Your task to perform on an android device: search for starred emails in the gmail app Image 0: 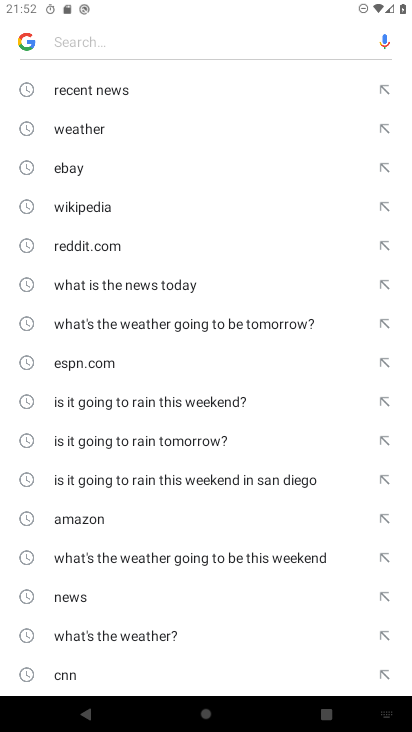
Step 0: press home button
Your task to perform on an android device: search for starred emails in the gmail app Image 1: 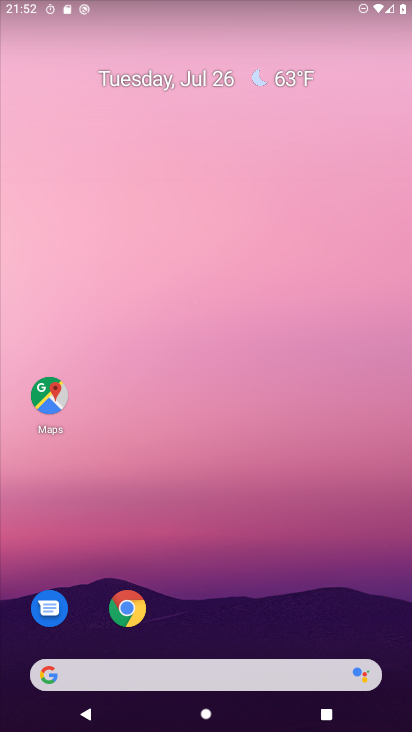
Step 1: click (20, 678)
Your task to perform on an android device: search for starred emails in the gmail app Image 2: 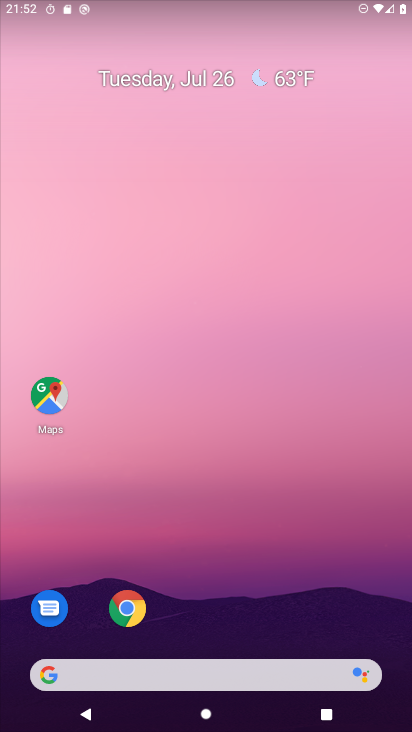
Step 2: drag from (49, 717) to (116, 0)
Your task to perform on an android device: search for starred emails in the gmail app Image 3: 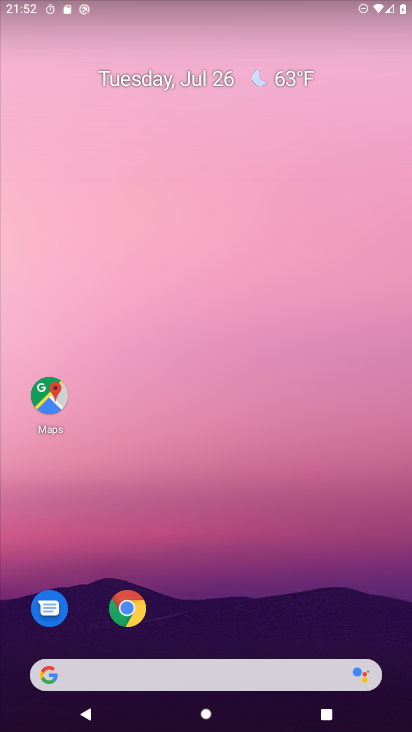
Step 3: drag from (29, 703) to (294, 43)
Your task to perform on an android device: search for starred emails in the gmail app Image 4: 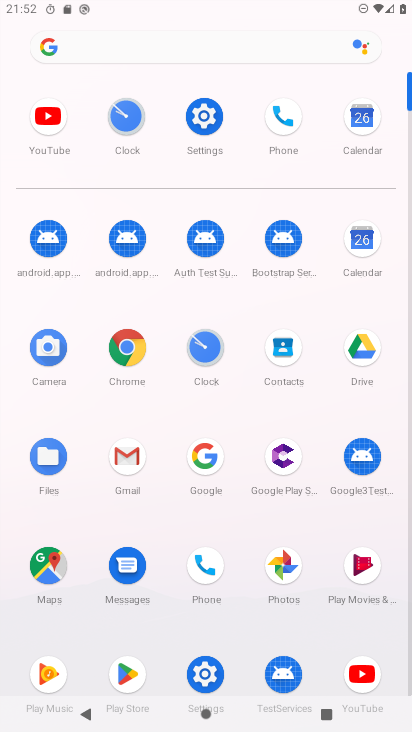
Step 4: click (115, 453)
Your task to perform on an android device: search for starred emails in the gmail app Image 5: 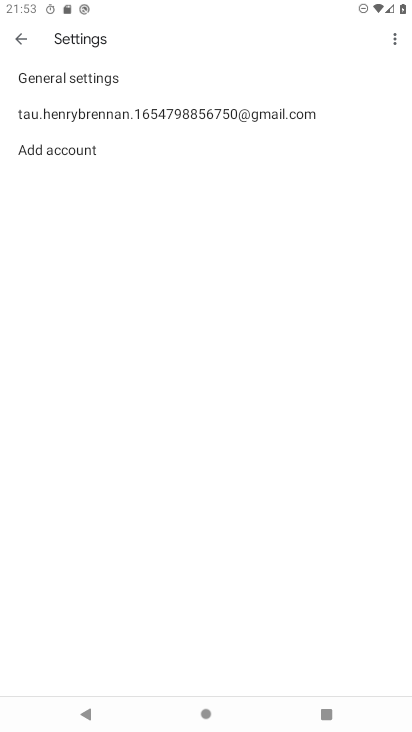
Step 5: click (25, 36)
Your task to perform on an android device: search for starred emails in the gmail app Image 6: 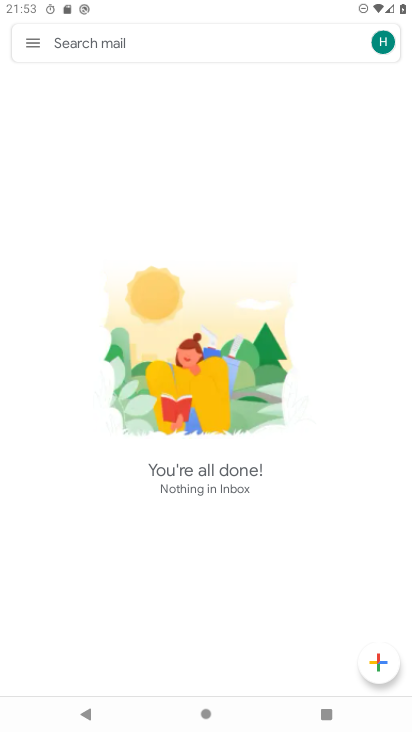
Step 6: click (35, 44)
Your task to perform on an android device: search for starred emails in the gmail app Image 7: 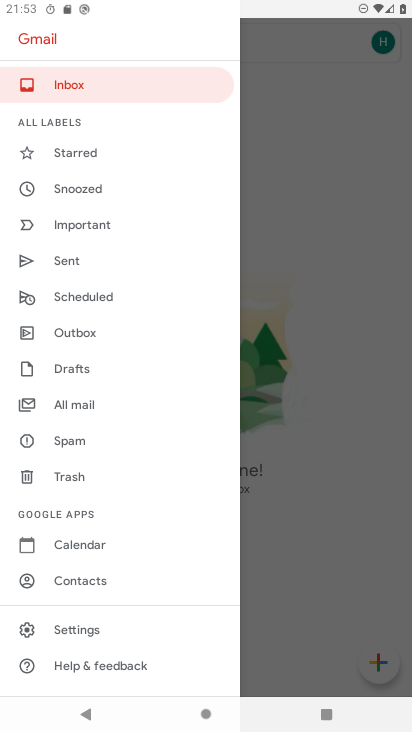
Step 7: click (73, 154)
Your task to perform on an android device: search for starred emails in the gmail app Image 8: 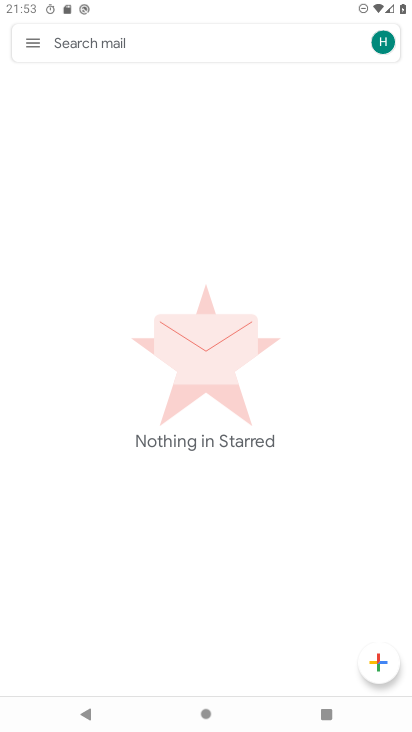
Step 8: task complete